Your task to perform on an android device: delete browsing data in the chrome app Image 0: 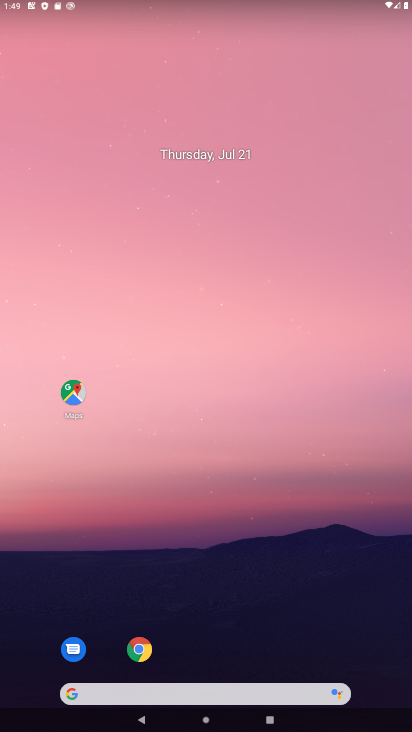
Step 0: click (137, 648)
Your task to perform on an android device: delete browsing data in the chrome app Image 1: 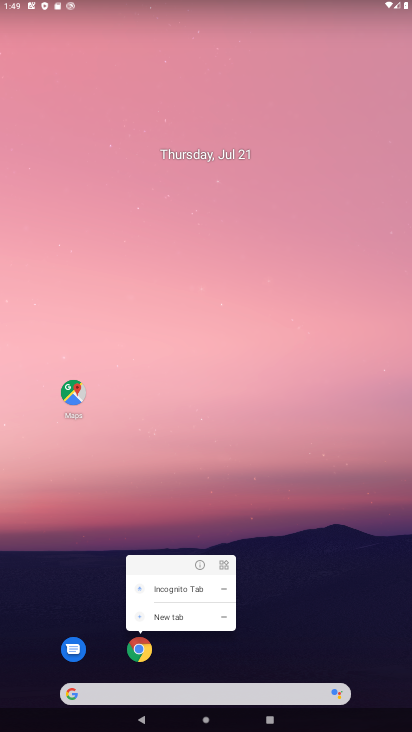
Step 1: click (142, 648)
Your task to perform on an android device: delete browsing data in the chrome app Image 2: 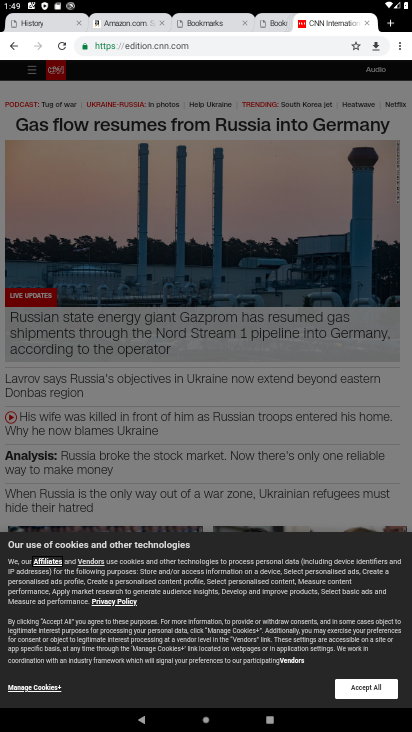
Step 2: click (399, 43)
Your task to perform on an android device: delete browsing data in the chrome app Image 3: 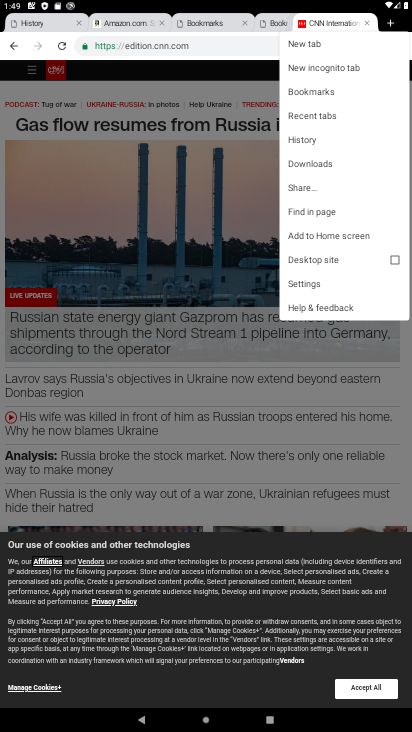
Step 3: click (301, 139)
Your task to perform on an android device: delete browsing data in the chrome app Image 4: 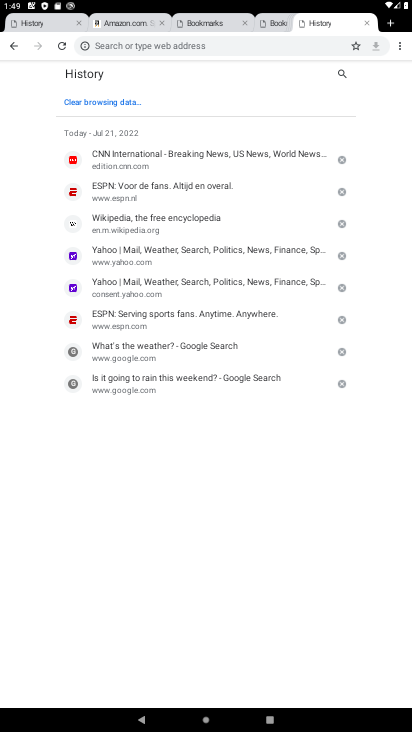
Step 4: click (90, 100)
Your task to perform on an android device: delete browsing data in the chrome app Image 5: 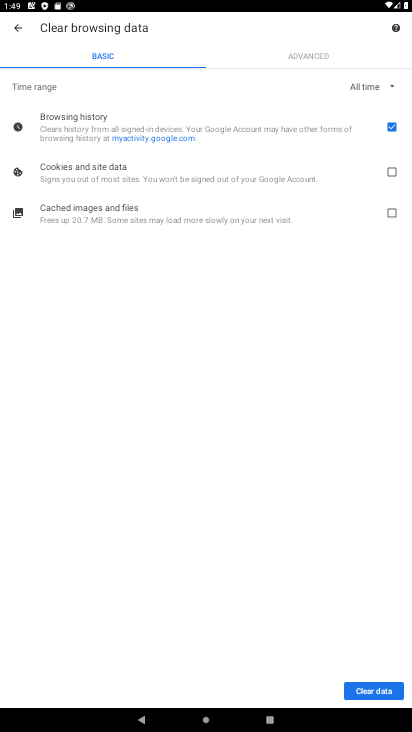
Step 5: click (379, 689)
Your task to perform on an android device: delete browsing data in the chrome app Image 6: 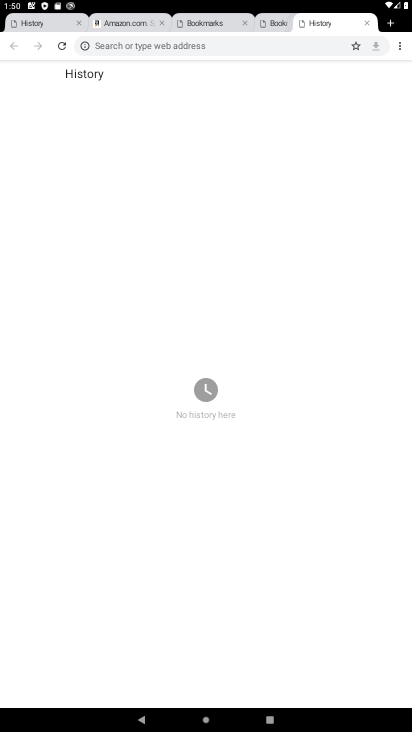
Step 6: task complete